Your task to perform on an android device: Open my contact list Image 0: 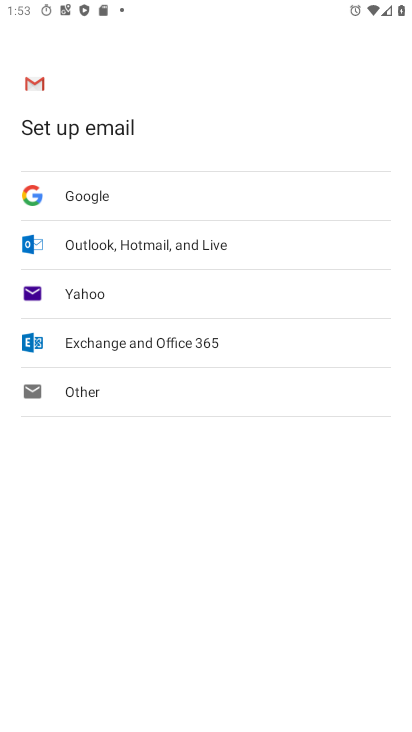
Step 0: press home button
Your task to perform on an android device: Open my contact list Image 1: 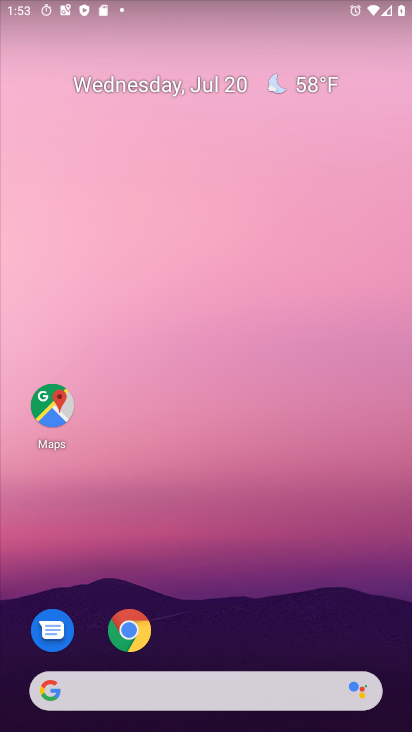
Step 1: drag from (194, 689) to (314, 157)
Your task to perform on an android device: Open my contact list Image 2: 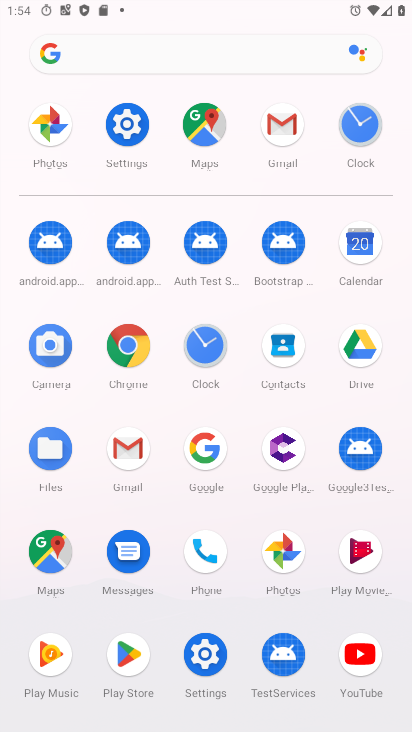
Step 2: click (271, 351)
Your task to perform on an android device: Open my contact list Image 3: 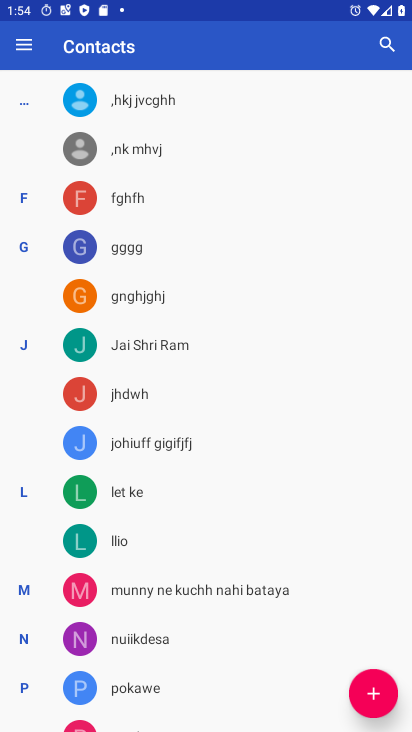
Step 3: task complete